Your task to perform on an android device: change the clock style Image 0: 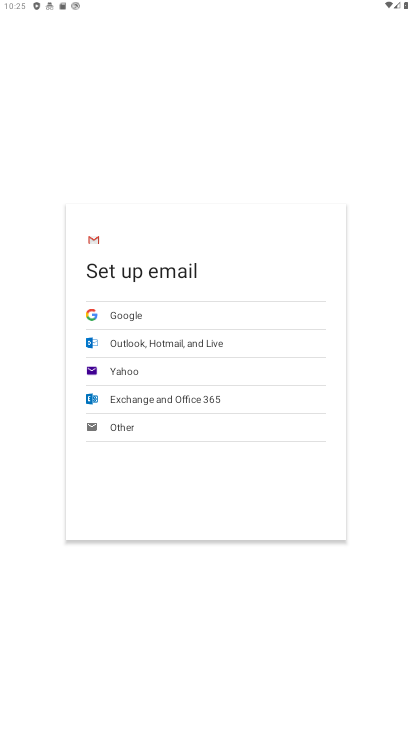
Step 0: press back button
Your task to perform on an android device: change the clock style Image 1: 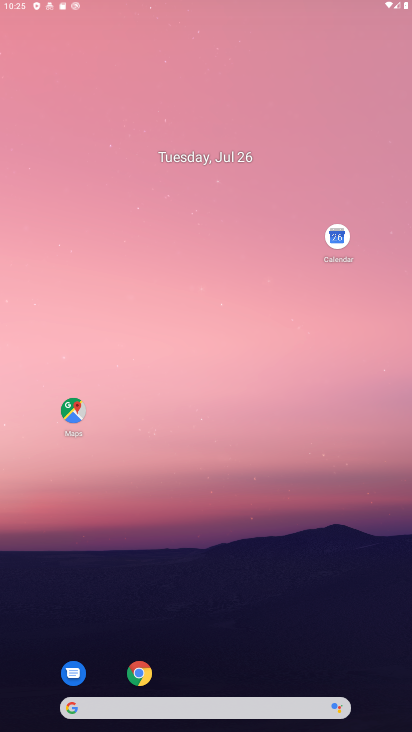
Step 1: click (28, 129)
Your task to perform on an android device: change the clock style Image 2: 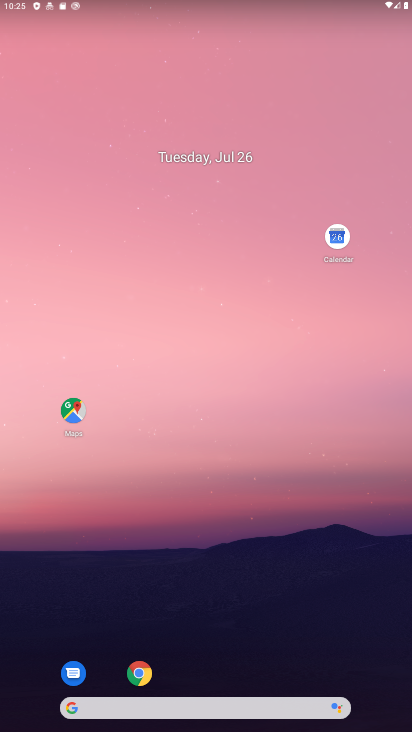
Step 2: drag from (205, 368) to (168, 151)
Your task to perform on an android device: change the clock style Image 3: 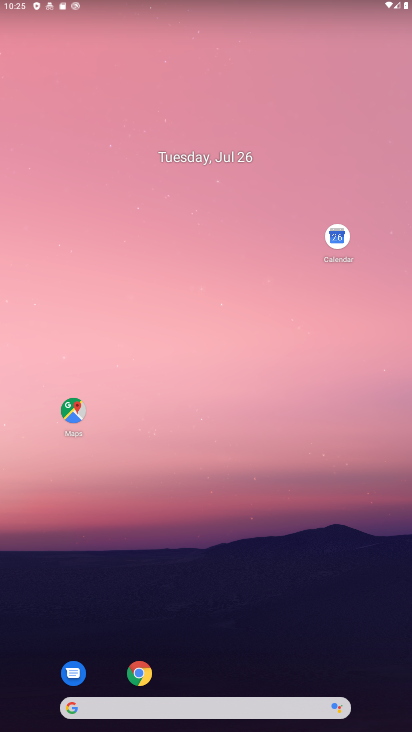
Step 3: click (155, 178)
Your task to perform on an android device: change the clock style Image 4: 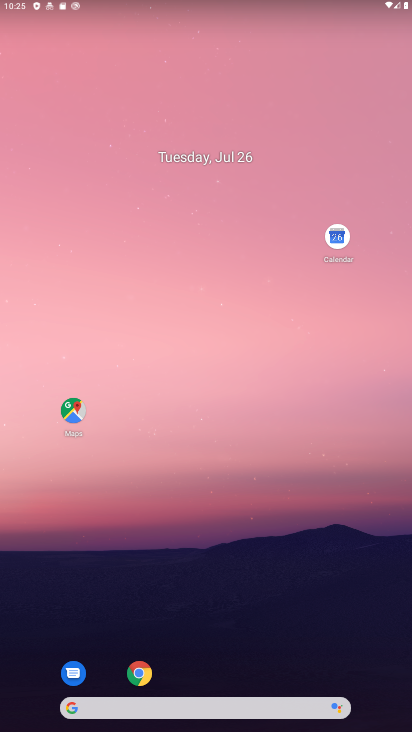
Step 4: click (160, 40)
Your task to perform on an android device: change the clock style Image 5: 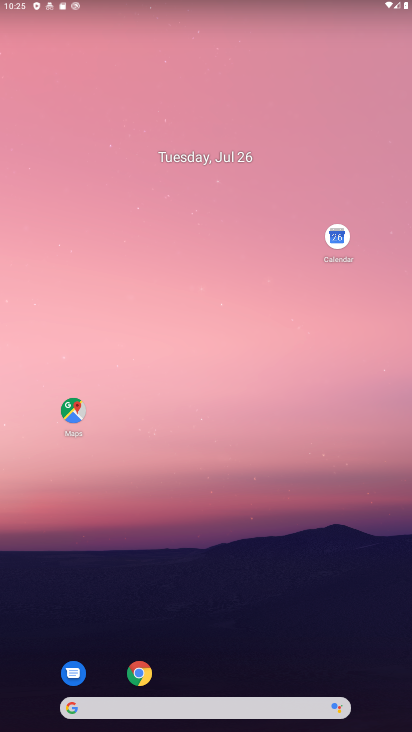
Step 5: drag from (186, 110) to (202, 66)
Your task to perform on an android device: change the clock style Image 6: 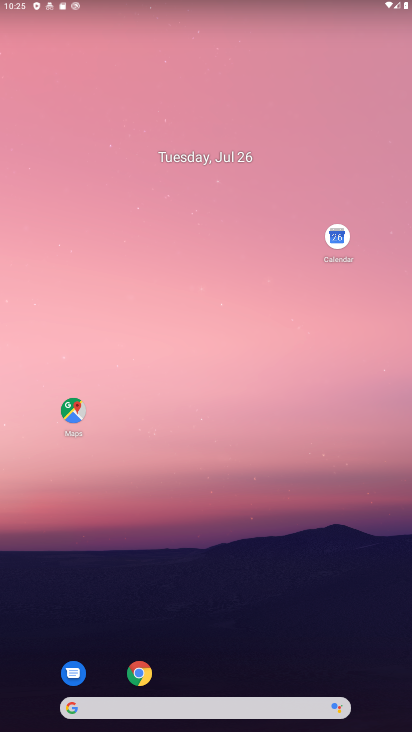
Step 6: click (120, 148)
Your task to perform on an android device: change the clock style Image 7: 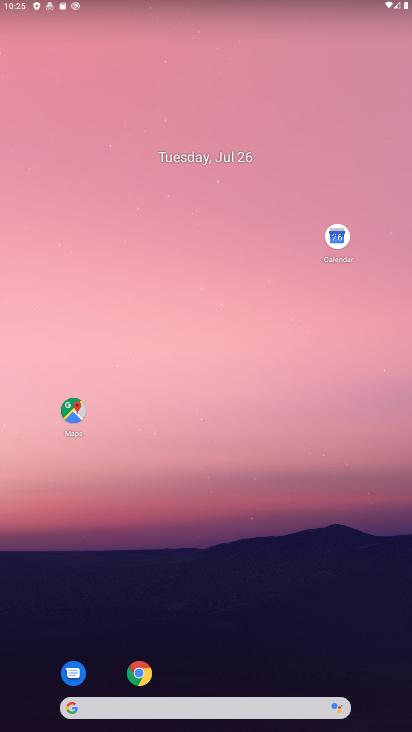
Step 7: drag from (187, 111) to (218, 80)
Your task to perform on an android device: change the clock style Image 8: 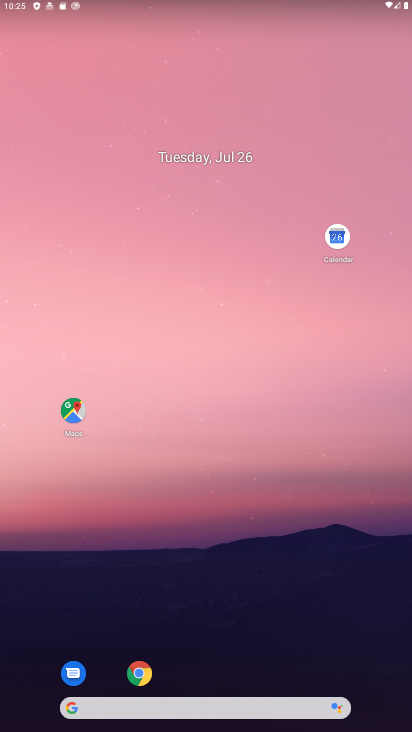
Step 8: drag from (257, 509) to (228, 13)
Your task to perform on an android device: change the clock style Image 9: 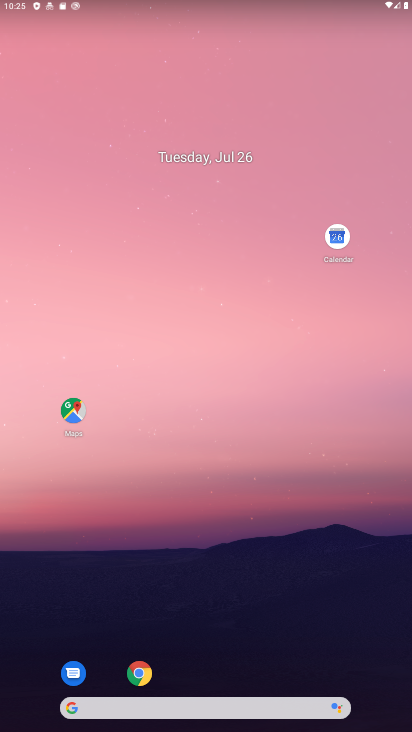
Step 9: drag from (166, 5) to (241, 98)
Your task to perform on an android device: change the clock style Image 10: 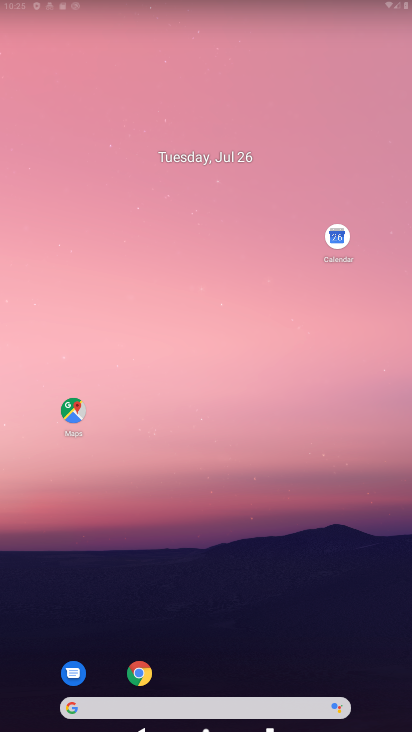
Step 10: drag from (214, 540) to (119, 42)
Your task to perform on an android device: change the clock style Image 11: 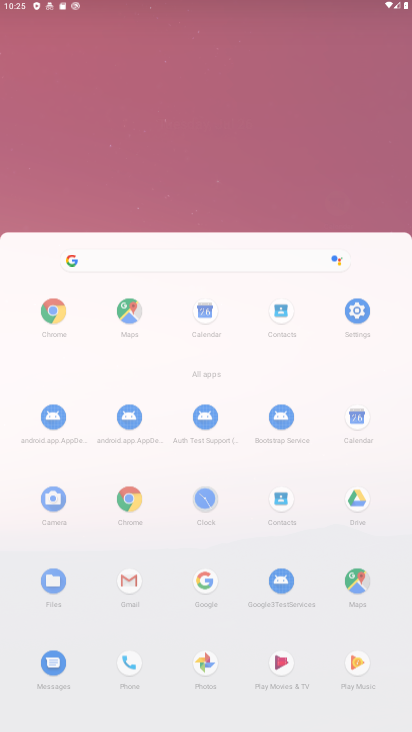
Step 11: drag from (177, 453) to (109, 12)
Your task to perform on an android device: change the clock style Image 12: 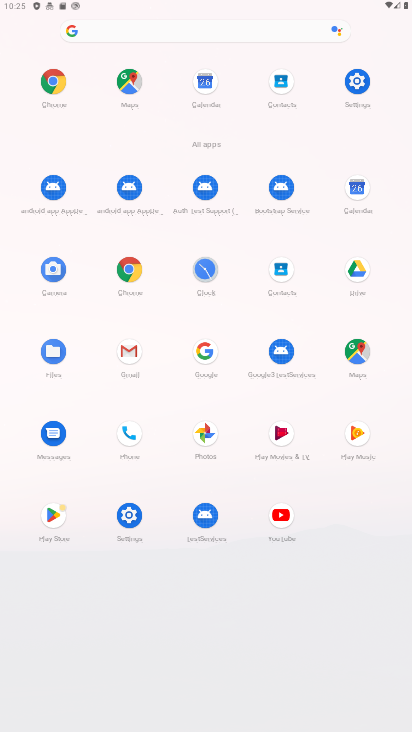
Step 12: click (201, 269)
Your task to perform on an android device: change the clock style Image 13: 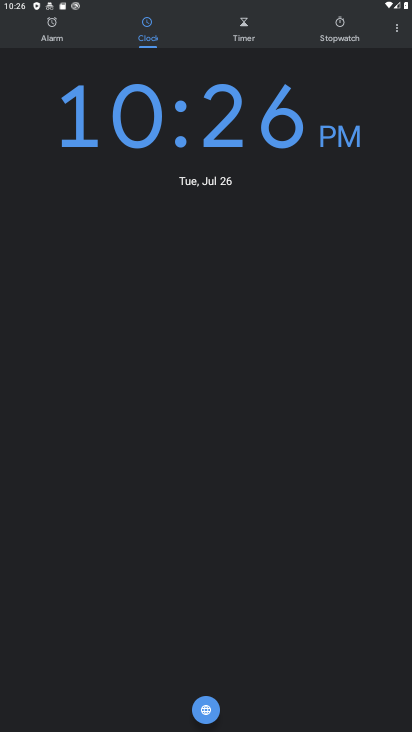
Step 13: click (395, 37)
Your task to perform on an android device: change the clock style Image 14: 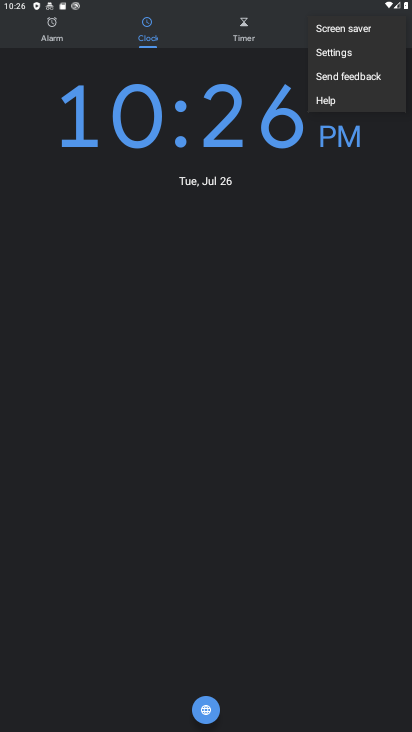
Step 14: click (351, 52)
Your task to perform on an android device: change the clock style Image 15: 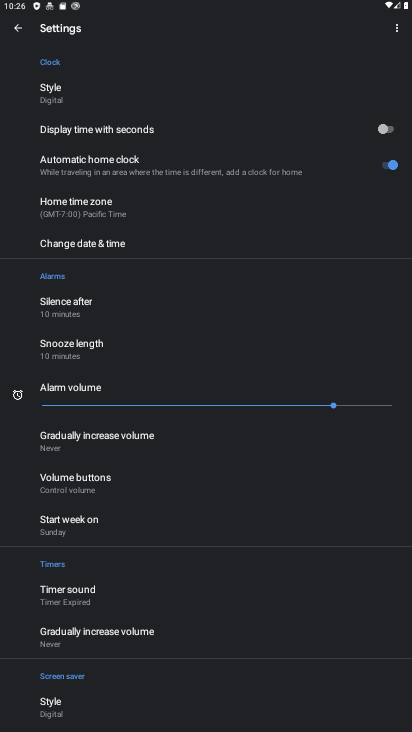
Step 15: click (64, 88)
Your task to perform on an android device: change the clock style Image 16: 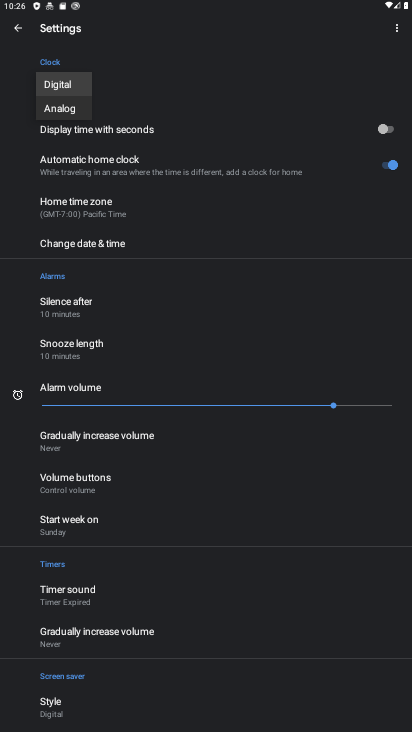
Step 16: click (65, 89)
Your task to perform on an android device: change the clock style Image 17: 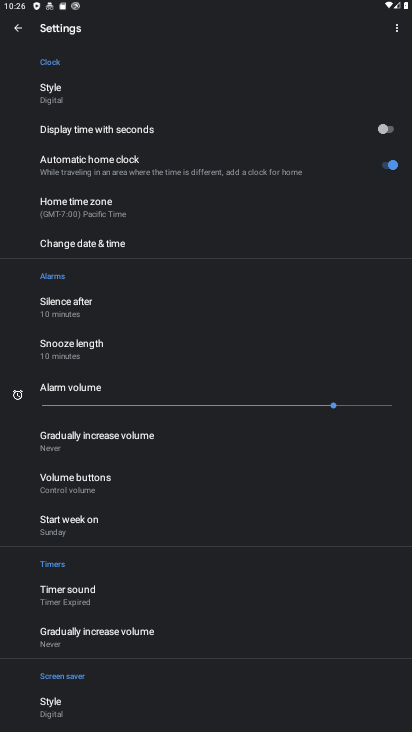
Step 17: click (66, 92)
Your task to perform on an android device: change the clock style Image 18: 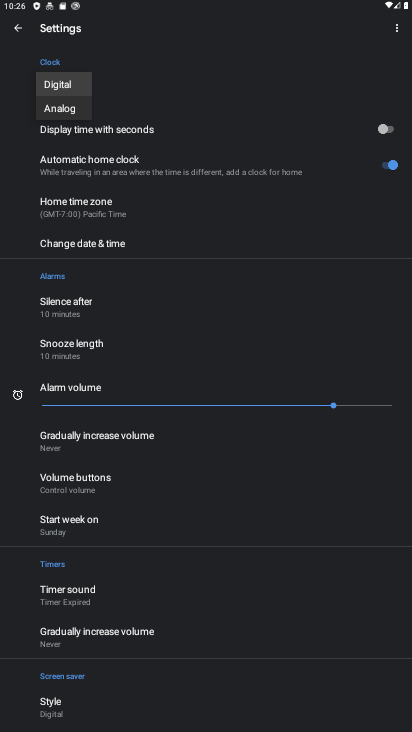
Step 18: click (62, 81)
Your task to perform on an android device: change the clock style Image 19: 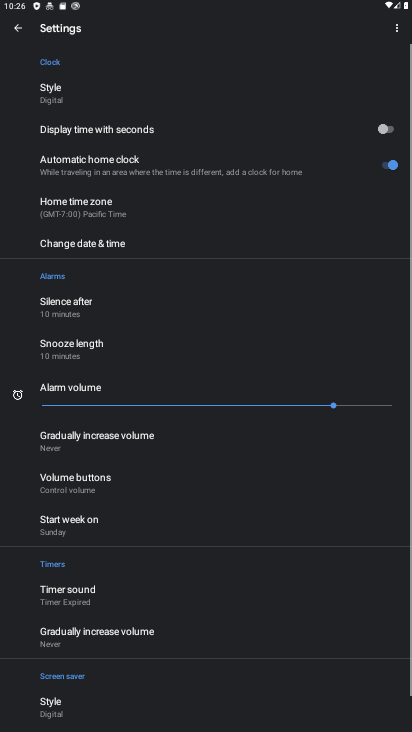
Step 19: task complete